Your task to perform on an android device: open chrome privacy settings Image 0: 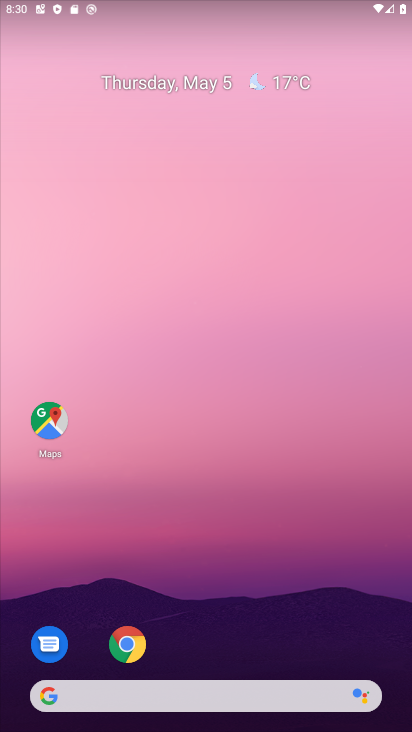
Step 0: click (120, 631)
Your task to perform on an android device: open chrome privacy settings Image 1: 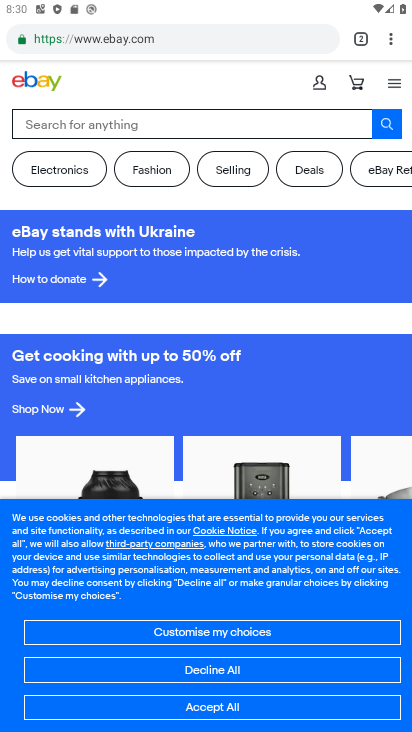
Step 1: click (395, 59)
Your task to perform on an android device: open chrome privacy settings Image 2: 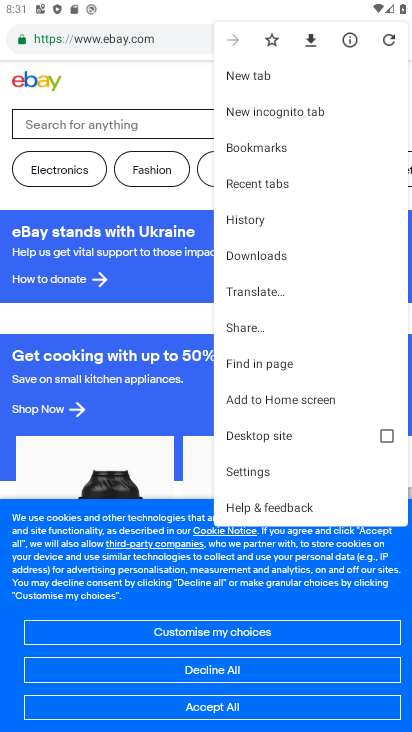
Step 2: click (260, 464)
Your task to perform on an android device: open chrome privacy settings Image 3: 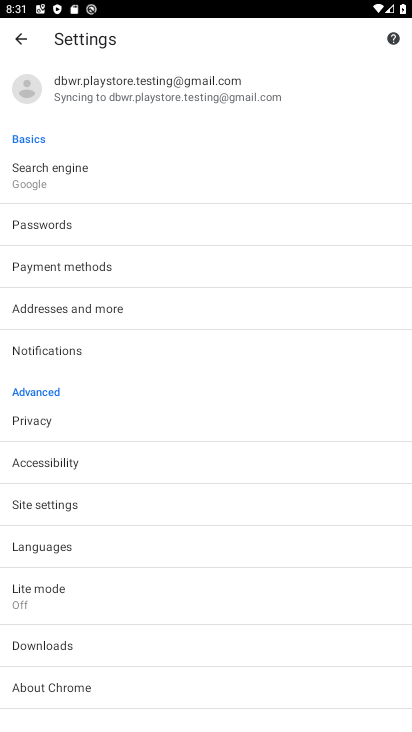
Step 3: click (42, 432)
Your task to perform on an android device: open chrome privacy settings Image 4: 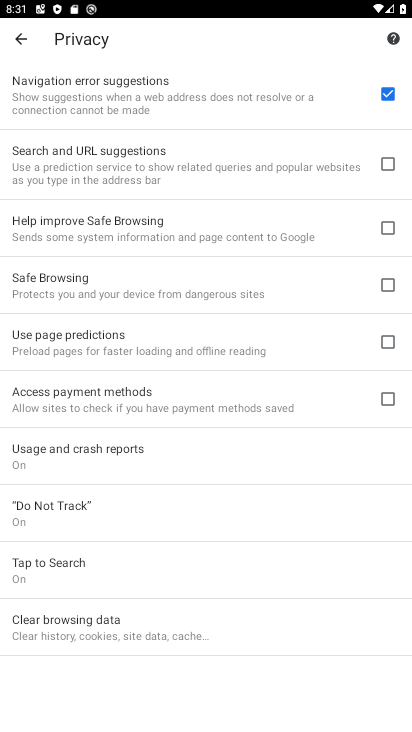
Step 4: task complete